Your task to perform on an android device: change text size in settings app Image 0: 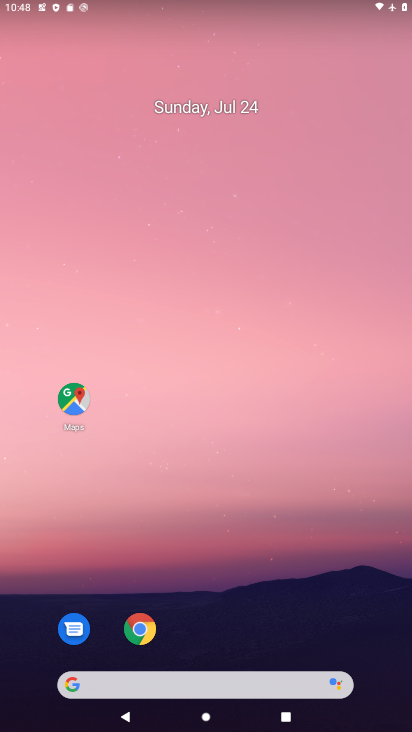
Step 0: drag from (227, 661) to (225, 63)
Your task to perform on an android device: change text size in settings app Image 1: 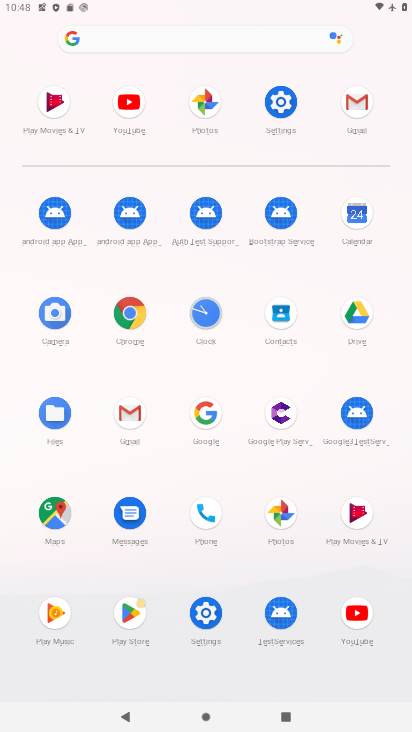
Step 1: click (266, 109)
Your task to perform on an android device: change text size in settings app Image 2: 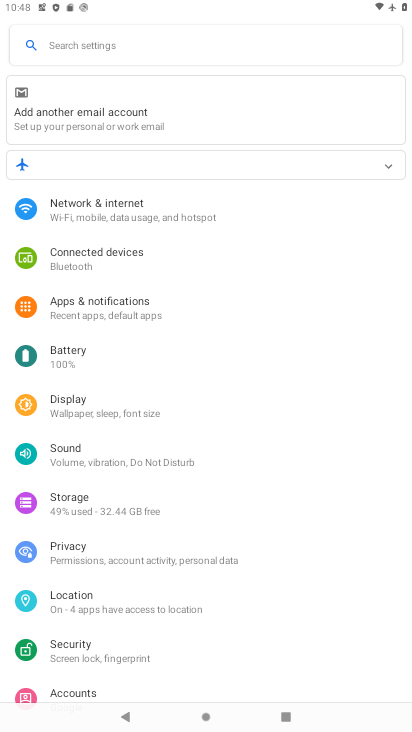
Step 2: task complete